Your task to perform on an android device: allow cookies in the chrome app Image 0: 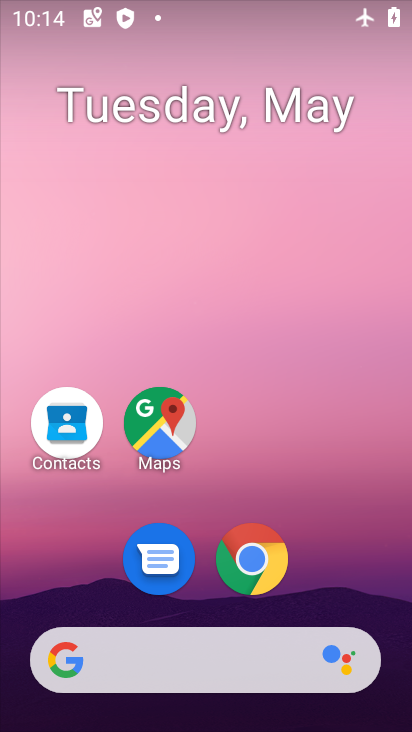
Step 0: click (267, 543)
Your task to perform on an android device: allow cookies in the chrome app Image 1: 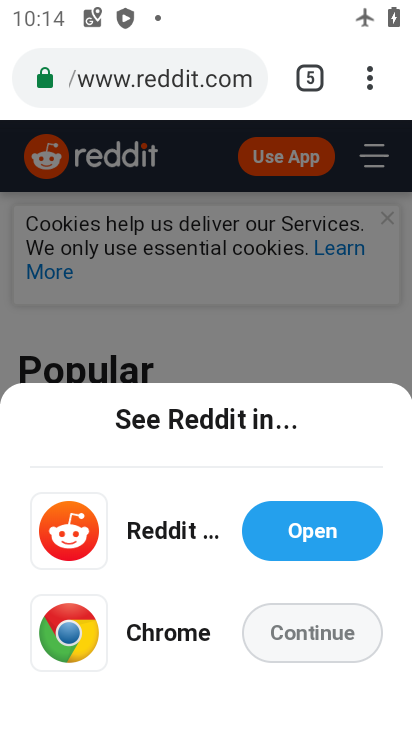
Step 1: click (198, 628)
Your task to perform on an android device: allow cookies in the chrome app Image 2: 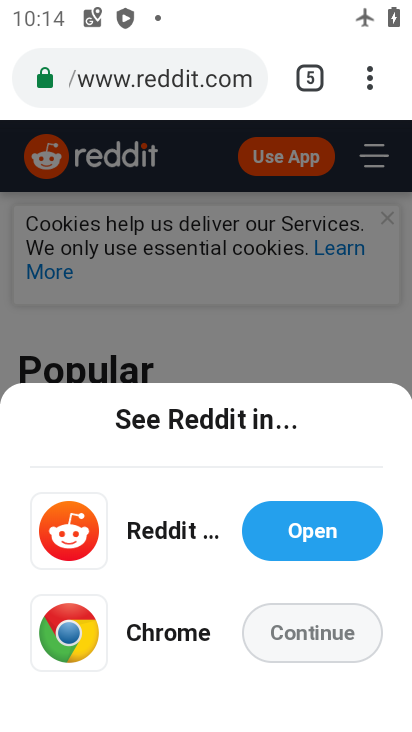
Step 2: click (332, 631)
Your task to perform on an android device: allow cookies in the chrome app Image 3: 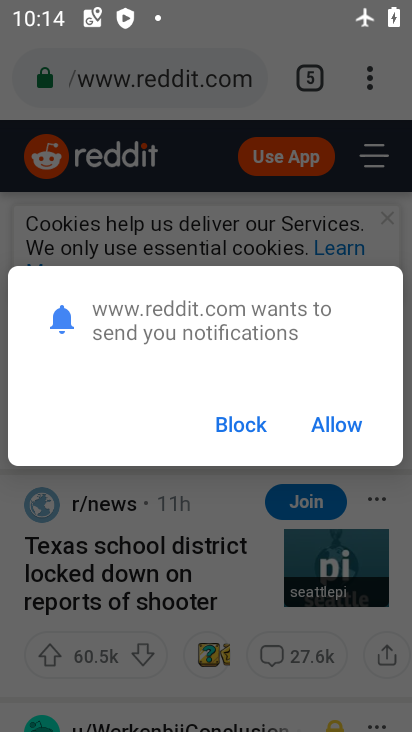
Step 3: click (332, 430)
Your task to perform on an android device: allow cookies in the chrome app Image 4: 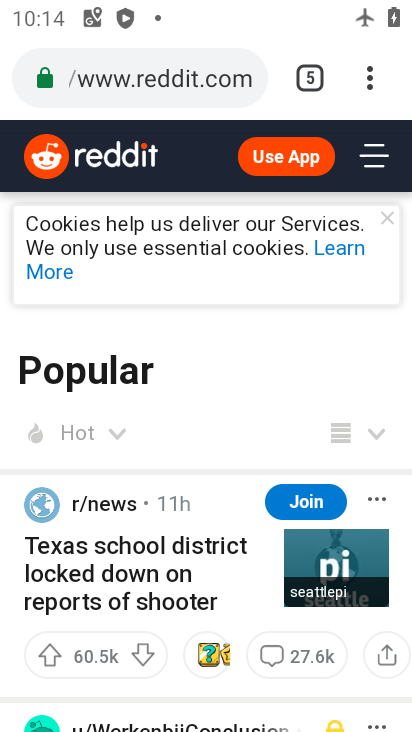
Step 4: click (386, 83)
Your task to perform on an android device: allow cookies in the chrome app Image 5: 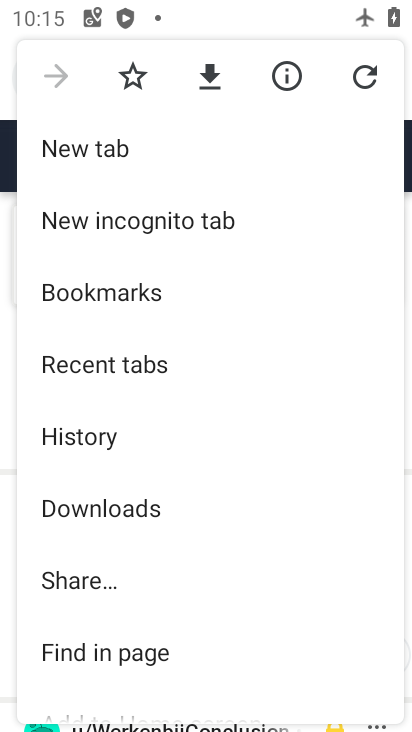
Step 5: task complete